Your task to perform on an android device: turn off translation in the chrome app Image 0: 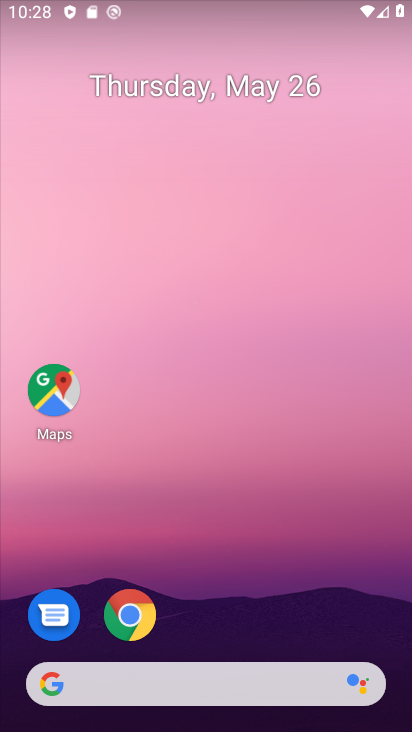
Step 0: click (145, 618)
Your task to perform on an android device: turn off translation in the chrome app Image 1: 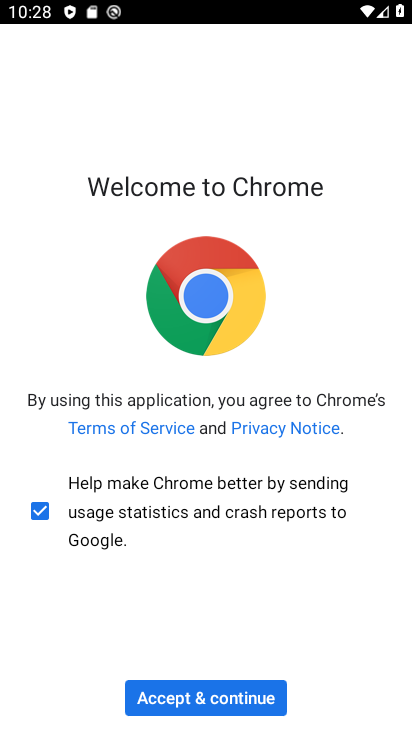
Step 1: click (214, 696)
Your task to perform on an android device: turn off translation in the chrome app Image 2: 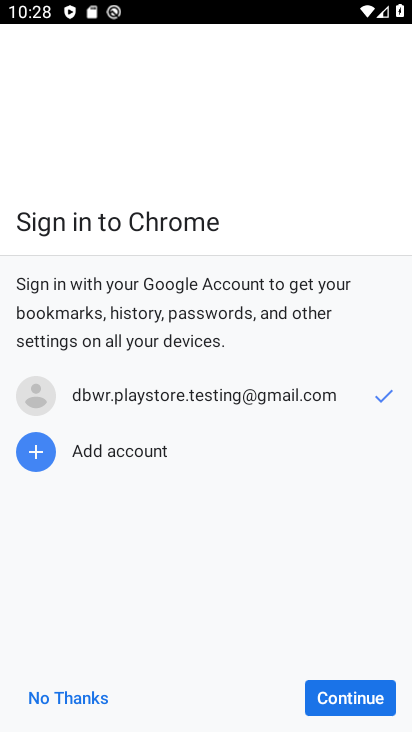
Step 2: click (324, 697)
Your task to perform on an android device: turn off translation in the chrome app Image 3: 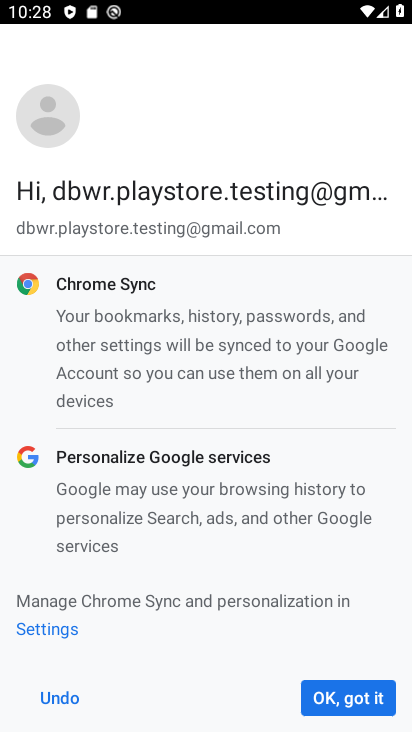
Step 3: click (324, 697)
Your task to perform on an android device: turn off translation in the chrome app Image 4: 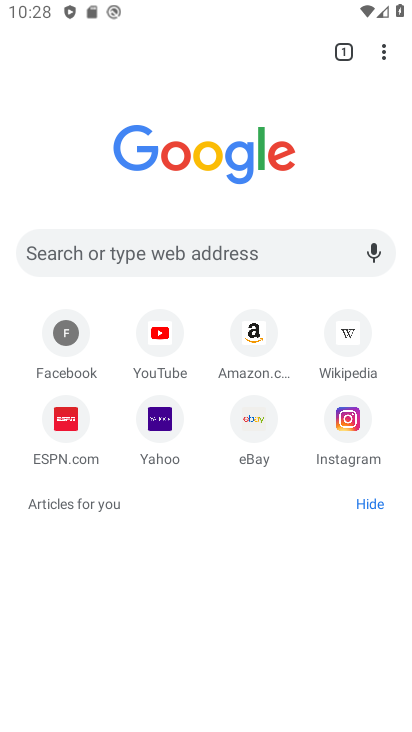
Step 4: click (388, 62)
Your task to perform on an android device: turn off translation in the chrome app Image 5: 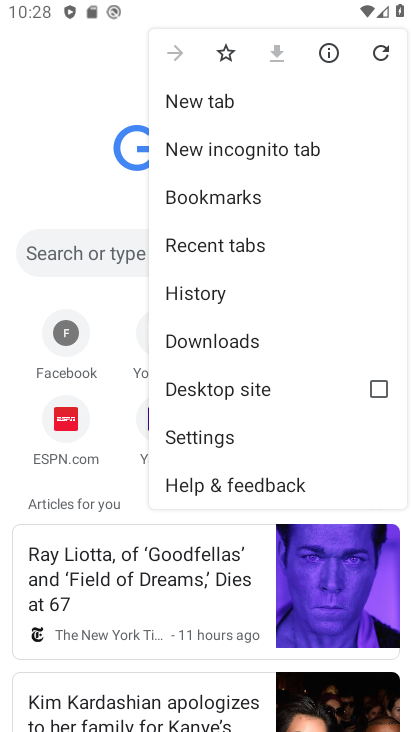
Step 5: click (253, 450)
Your task to perform on an android device: turn off translation in the chrome app Image 6: 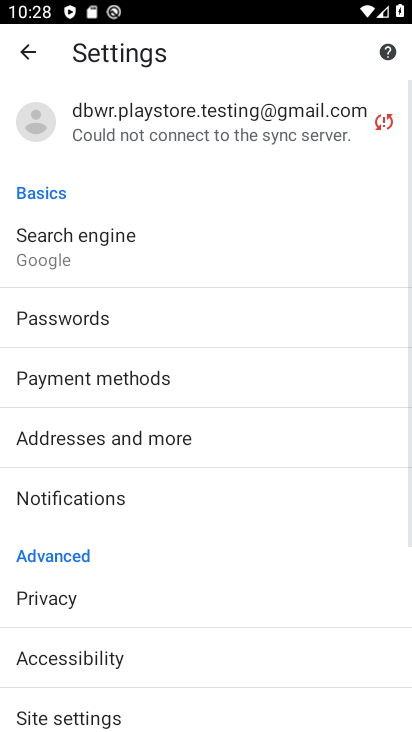
Step 6: drag from (258, 551) to (284, 389)
Your task to perform on an android device: turn off translation in the chrome app Image 7: 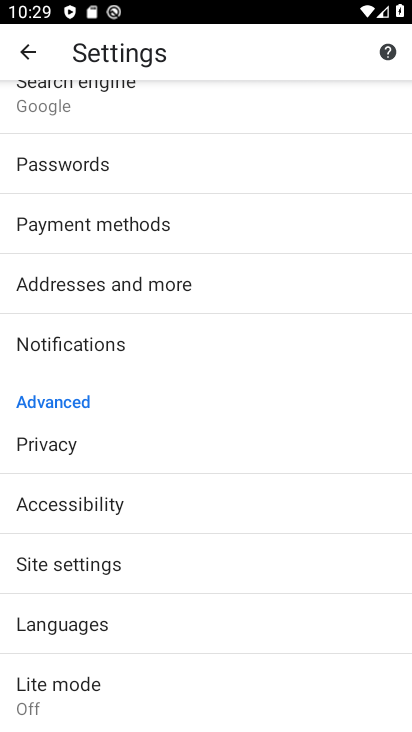
Step 7: click (133, 630)
Your task to perform on an android device: turn off translation in the chrome app Image 8: 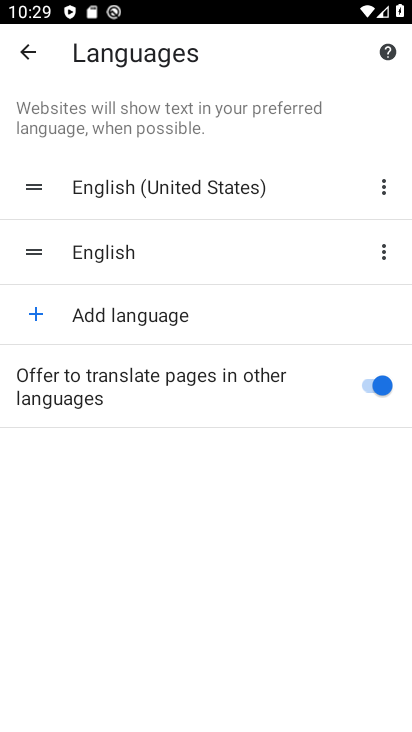
Step 8: click (372, 383)
Your task to perform on an android device: turn off translation in the chrome app Image 9: 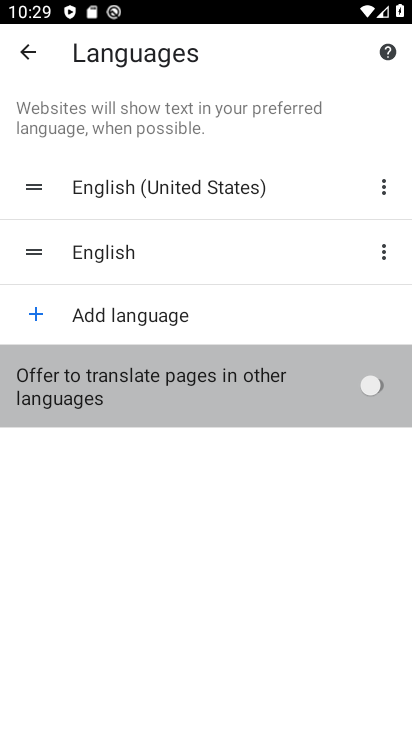
Step 9: click (372, 383)
Your task to perform on an android device: turn off translation in the chrome app Image 10: 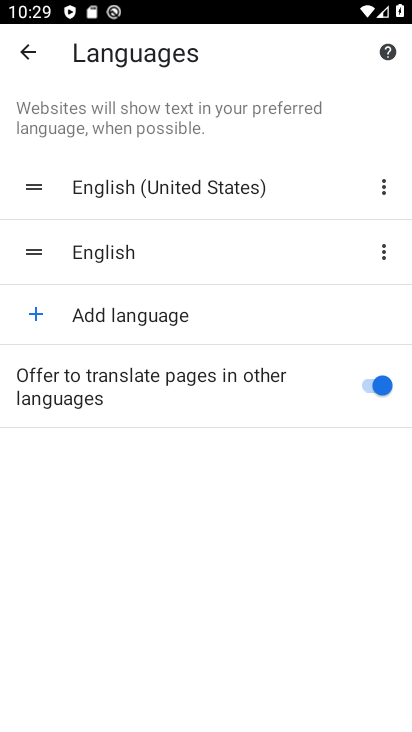
Step 10: click (372, 383)
Your task to perform on an android device: turn off translation in the chrome app Image 11: 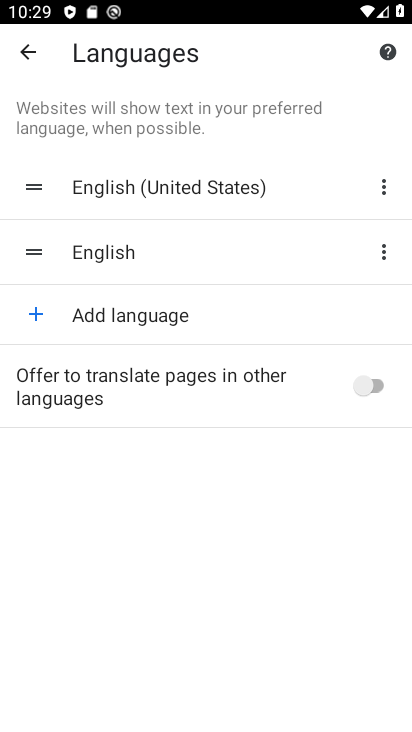
Step 11: task complete